Your task to perform on an android device: Show me the alarms in the clock app Image 0: 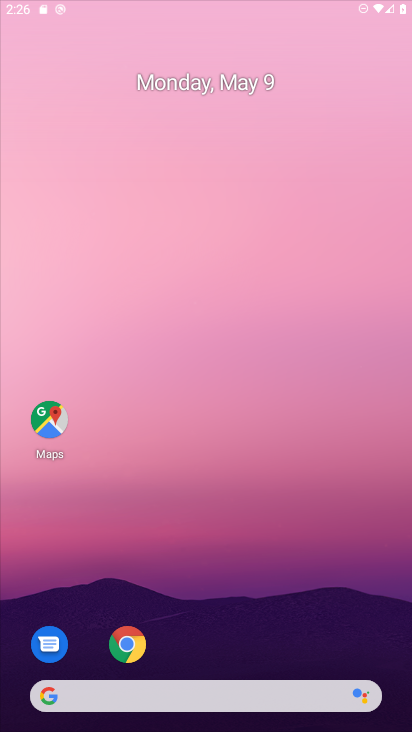
Step 0: drag from (251, 638) to (288, 213)
Your task to perform on an android device: Show me the alarms in the clock app Image 1: 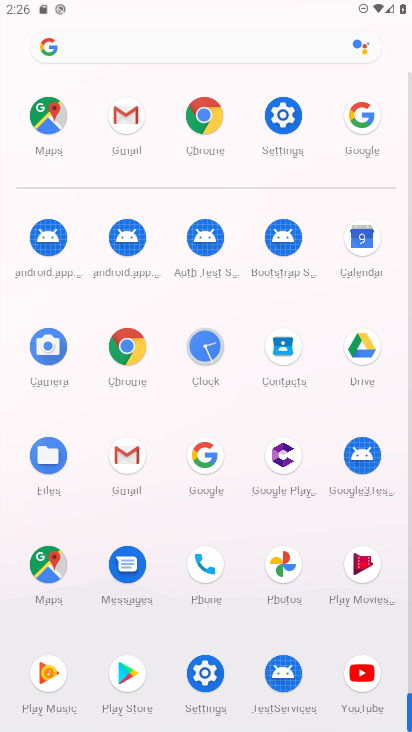
Step 1: click (207, 378)
Your task to perform on an android device: Show me the alarms in the clock app Image 2: 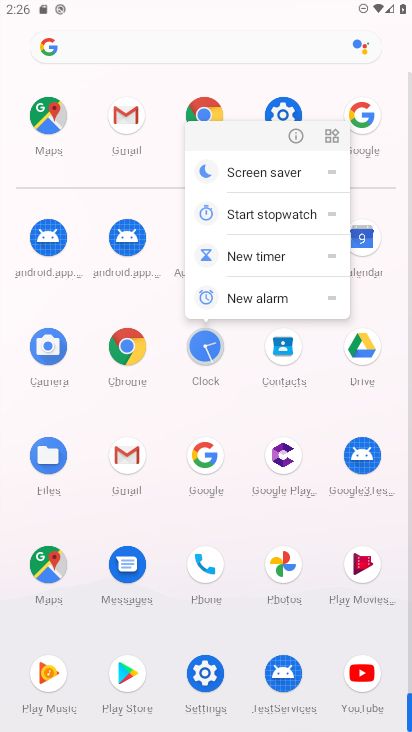
Step 2: click (207, 367)
Your task to perform on an android device: Show me the alarms in the clock app Image 3: 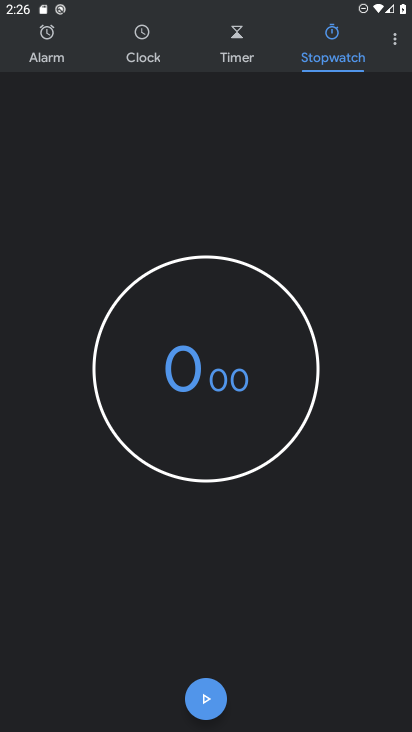
Step 3: click (400, 45)
Your task to perform on an android device: Show me the alarms in the clock app Image 4: 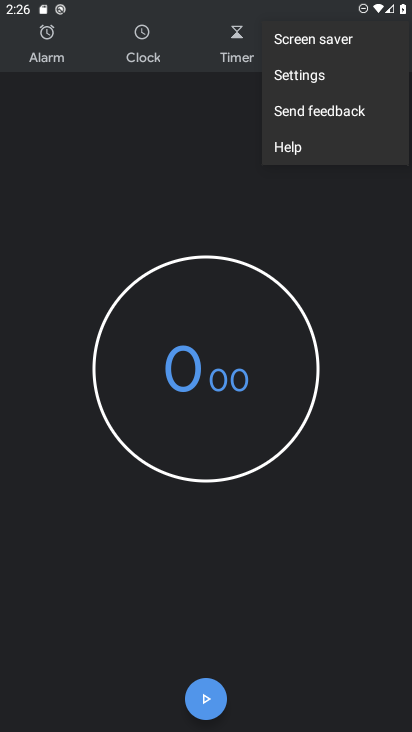
Step 4: click (60, 57)
Your task to perform on an android device: Show me the alarms in the clock app Image 5: 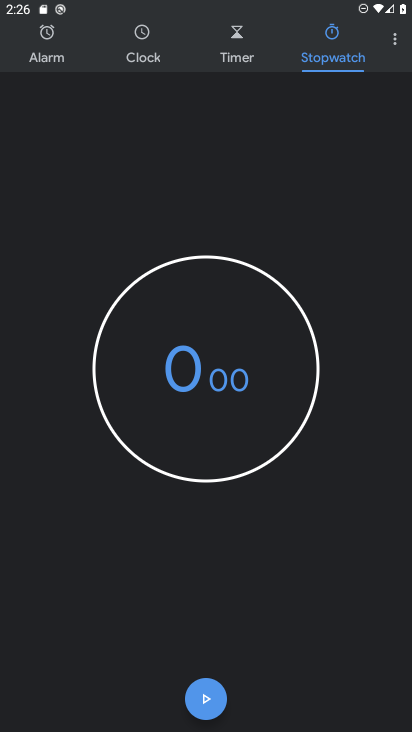
Step 5: click (58, 57)
Your task to perform on an android device: Show me the alarms in the clock app Image 6: 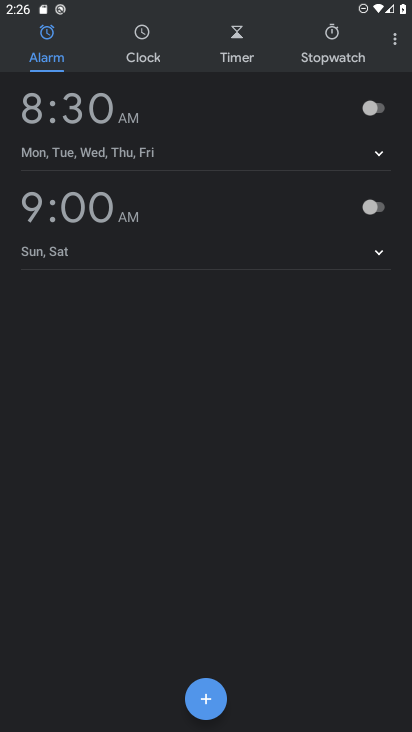
Step 6: task complete